Your task to perform on an android device: change alarm snooze length Image 0: 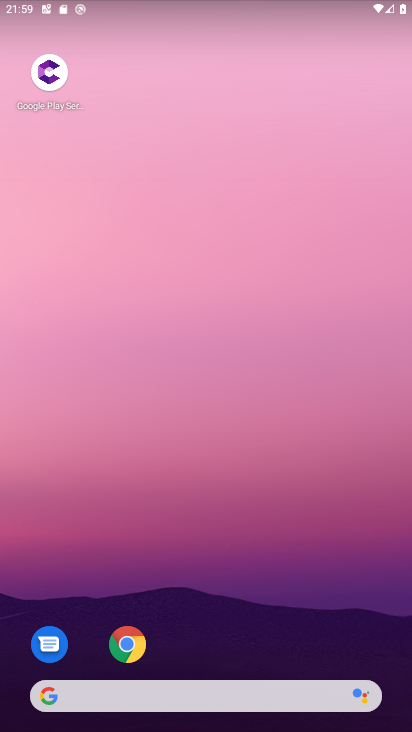
Step 0: drag from (223, 659) to (261, 128)
Your task to perform on an android device: change alarm snooze length Image 1: 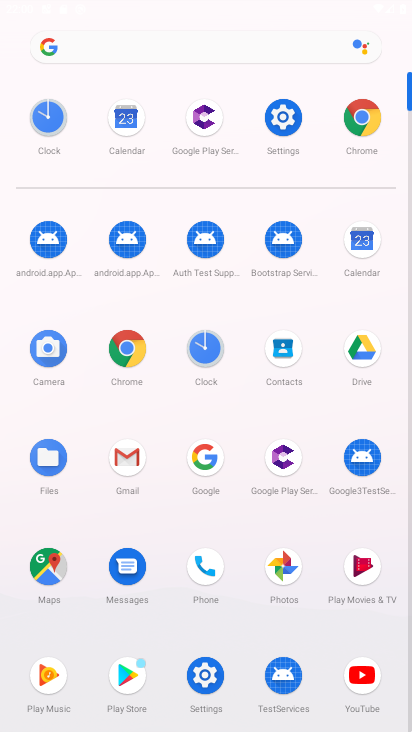
Step 1: click (199, 342)
Your task to perform on an android device: change alarm snooze length Image 2: 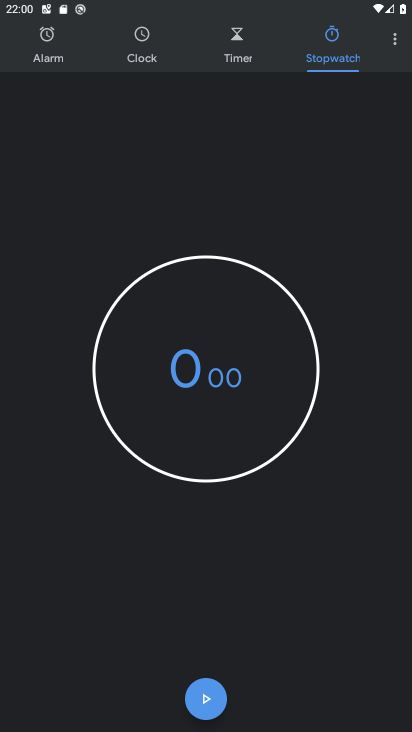
Step 2: click (396, 35)
Your task to perform on an android device: change alarm snooze length Image 3: 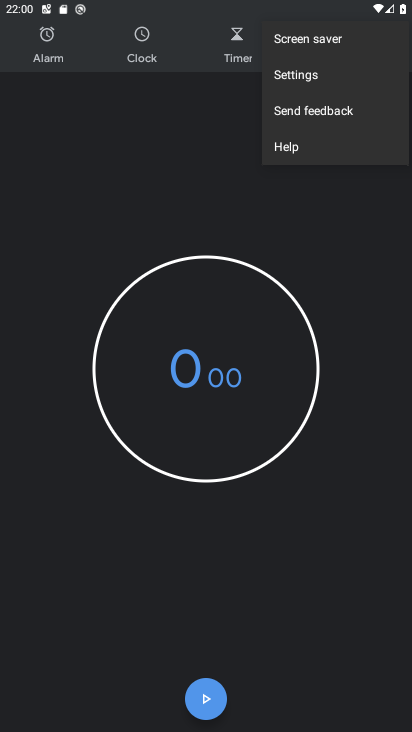
Step 3: click (323, 69)
Your task to perform on an android device: change alarm snooze length Image 4: 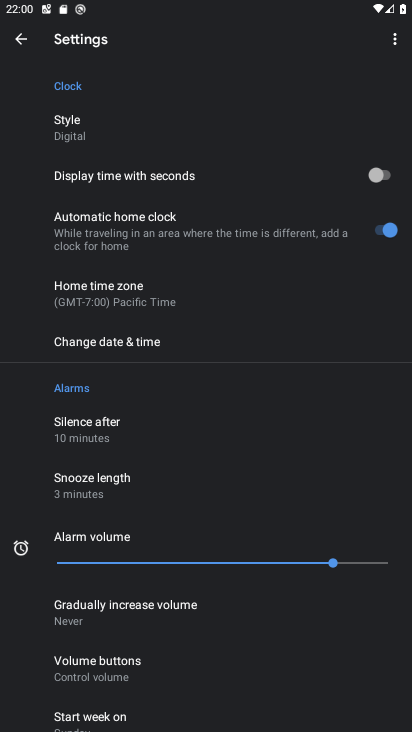
Step 4: click (150, 484)
Your task to perform on an android device: change alarm snooze length Image 5: 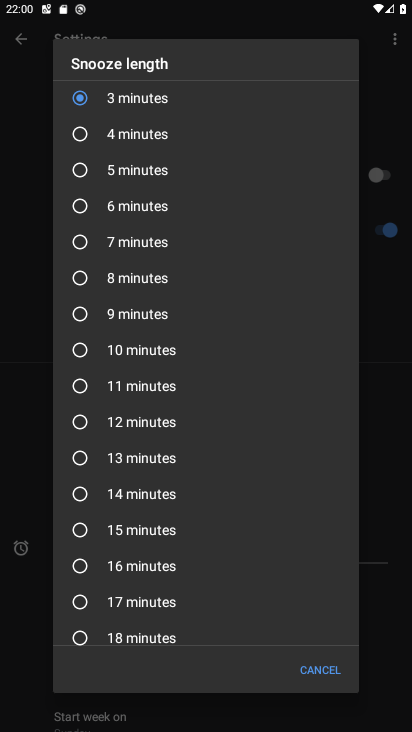
Step 5: drag from (138, 162) to (136, 426)
Your task to perform on an android device: change alarm snooze length Image 6: 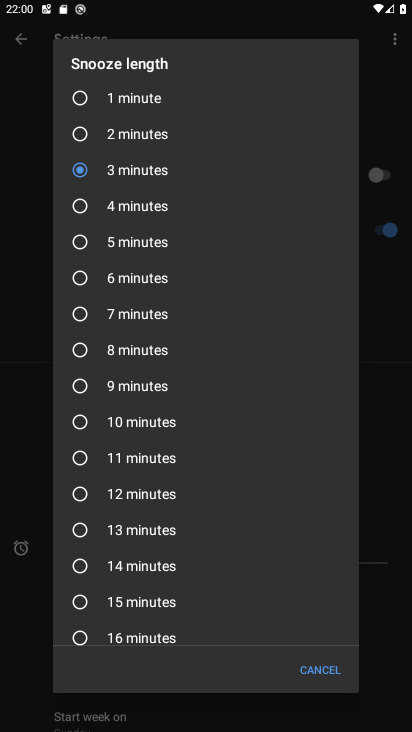
Step 6: click (82, 242)
Your task to perform on an android device: change alarm snooze length Image 7: 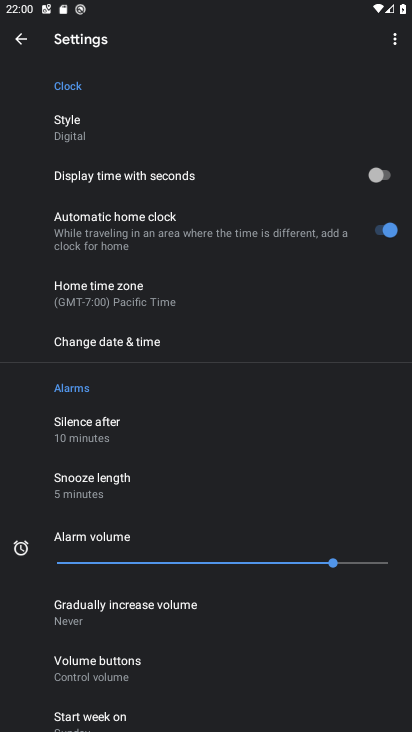
Step 7: task complete